Your task to perform on an android device: visit the assistant section in the google photos Image 0: 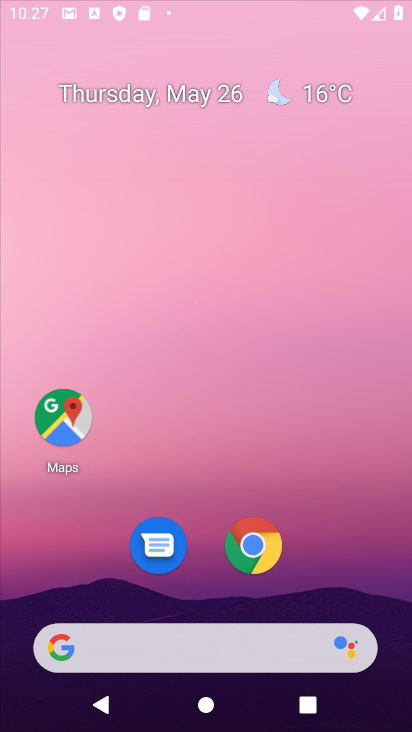
Step 0: press home button
Your task to perform on an android device: visit the assistant section in the google photos Image 1: 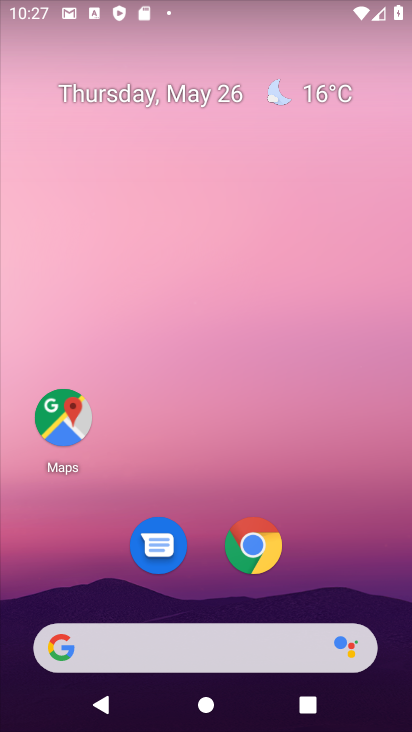
Step 1: drag from (288, 616) to (297, 193)
Your task to perform on an android device: visit the assistant section in the google photos Image 2: 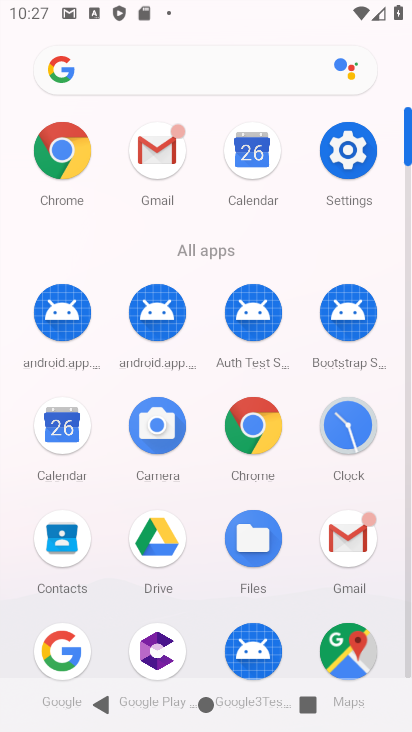
Step 2: drag from (390, 580) to (398, 204)
Your task to perform on an android device: visit the assistant section in the google photos Image 3: 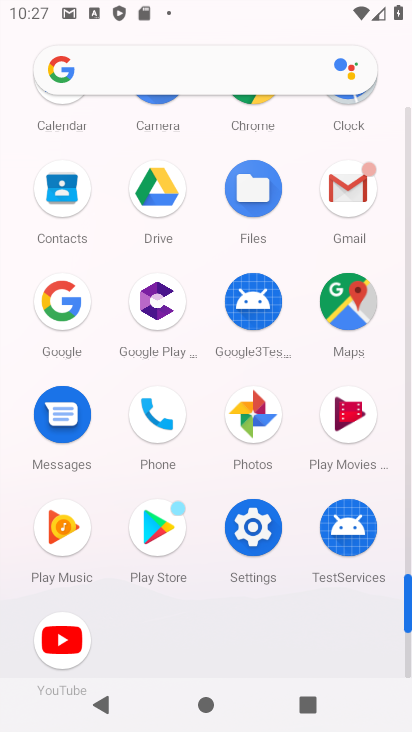
Step 3: click (258, 415)
Your task to perform on an android device: visit the assistant section in the google photos Image 4: 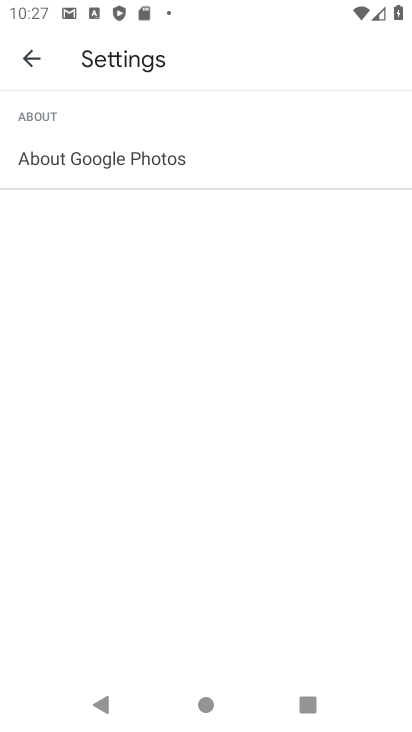
Step 4: click (31, 57)
Your task to perform on an android device: visit the assistant section in the google photos Image 5: 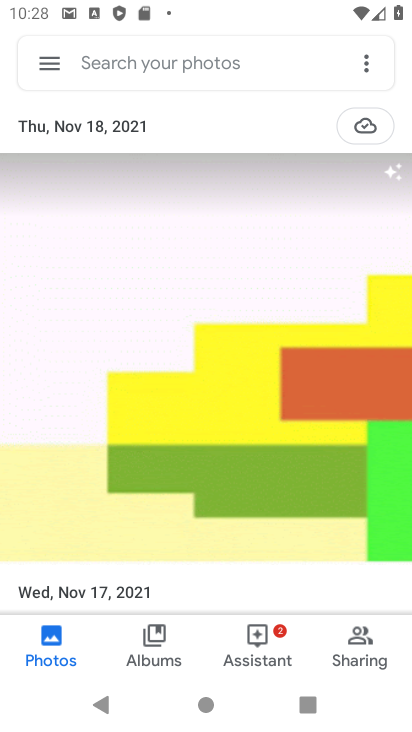
Step 5: click (253, 638)
Your task to perform on an android device: visit the assistant section in the google photos Image 6: 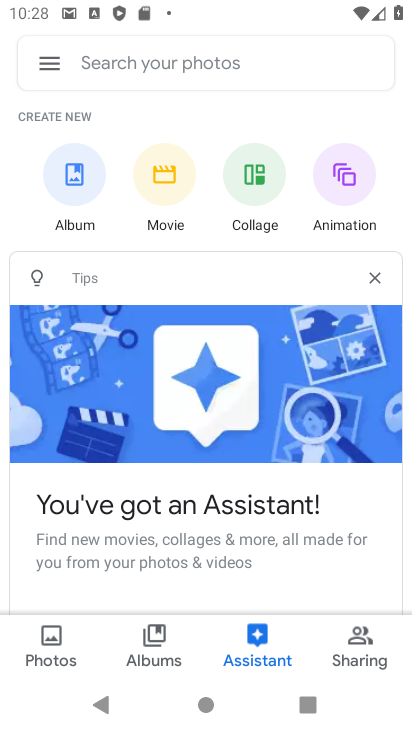
Step 6: task complete